Your task to perform on an android device: Open Google Maps Image 0: 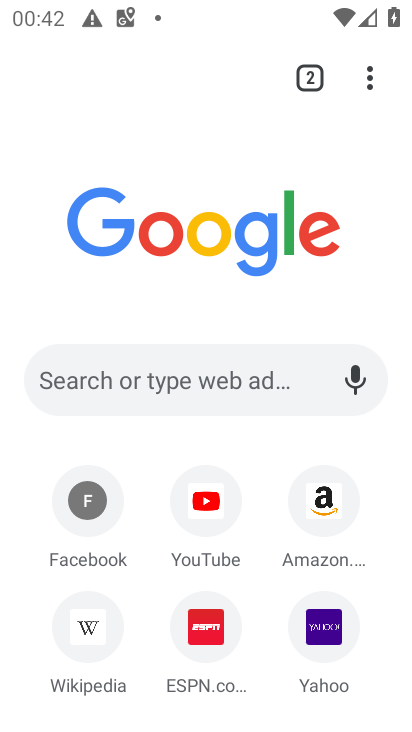
Step 0: press home button
Your task to perform on an android device: Open Google Maps Image 1: 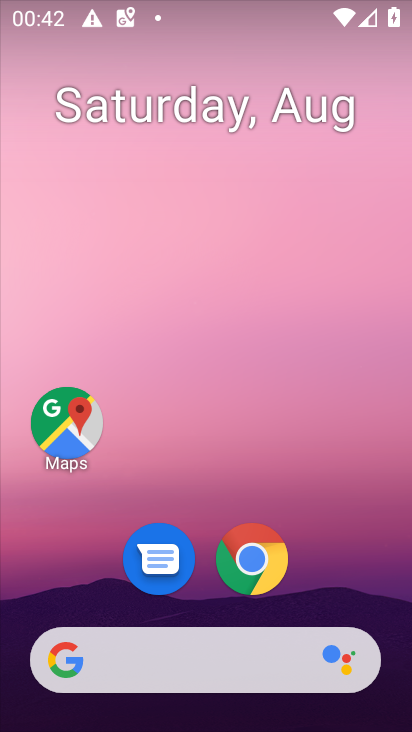
Step 1: click (73, 447)
Your task to perform on an android device: Open Google Maps Image 2: 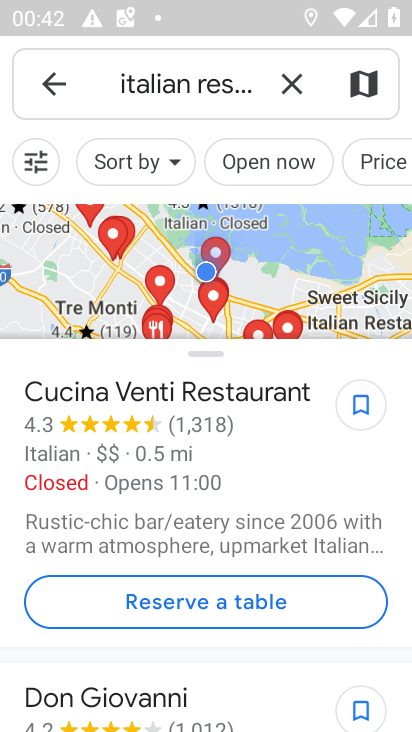
Step 2: task complete